Your task to perform on an android device: Go to wifi settings Image 0: 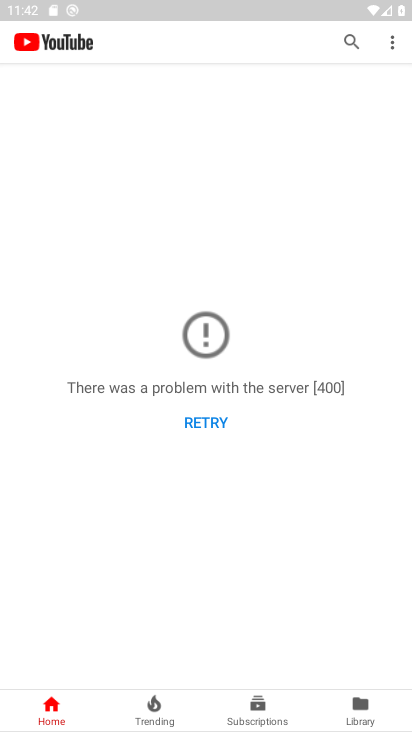
Step 0: press home button
Your task to perform on an android device: Go to wifi settings Image 1: 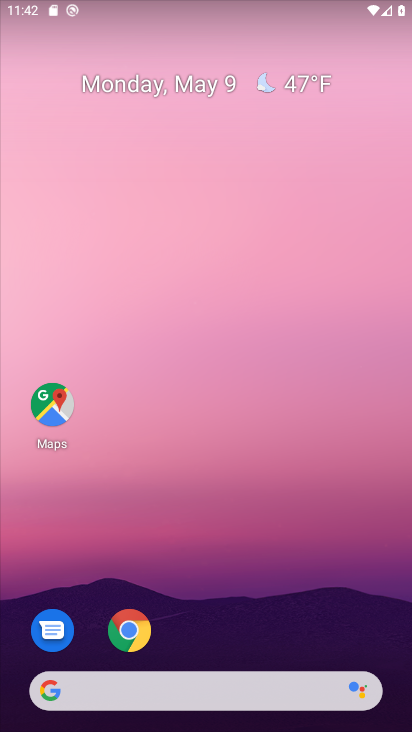
Step 1: drag from (203, 554) to (121, 62)
Your task to perform on an android device: Go to wifi settings Image 2: 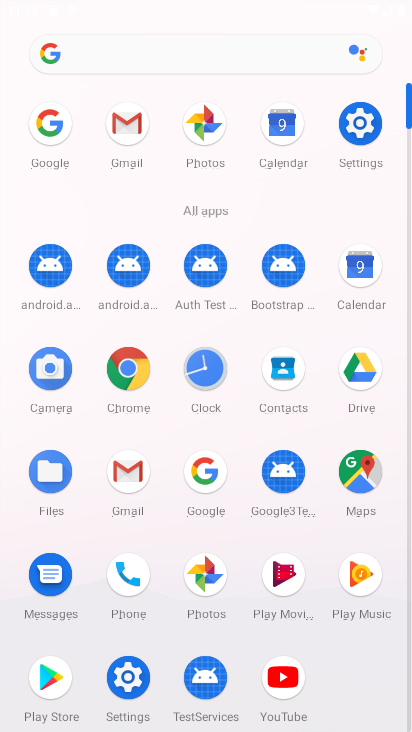
Step 2: click (352, 130)
Your task to perform on an android device: Go to wifi settings Image 3: 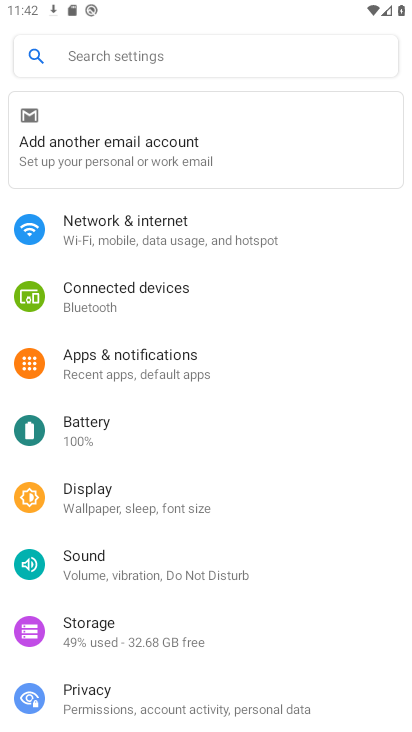
Step 3: click (167, 234)
Your task to perform on an android device: Go to wifi settings Image 4: 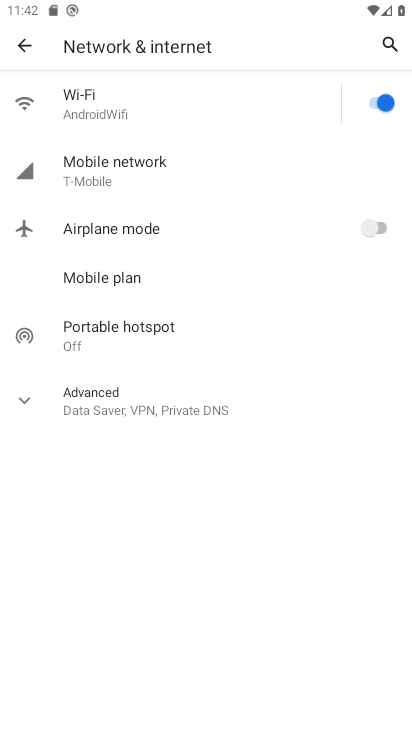
Step 4: click (104, 99)
Your task to perform on an android device: Go to wifi settings Image 5: 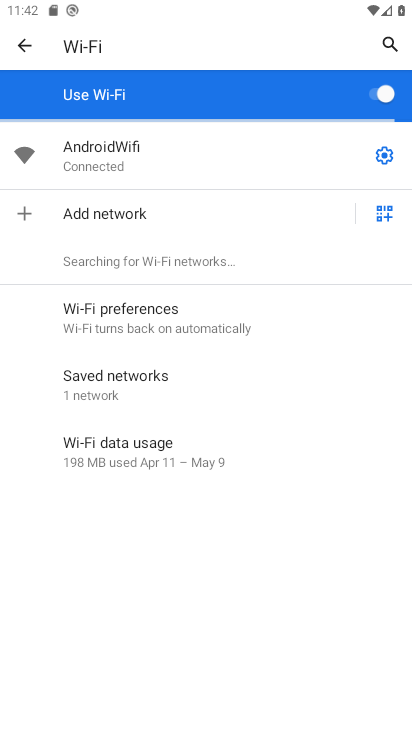
Step 5: task complete